Your task to perform on an android device: Open Google Image 0: 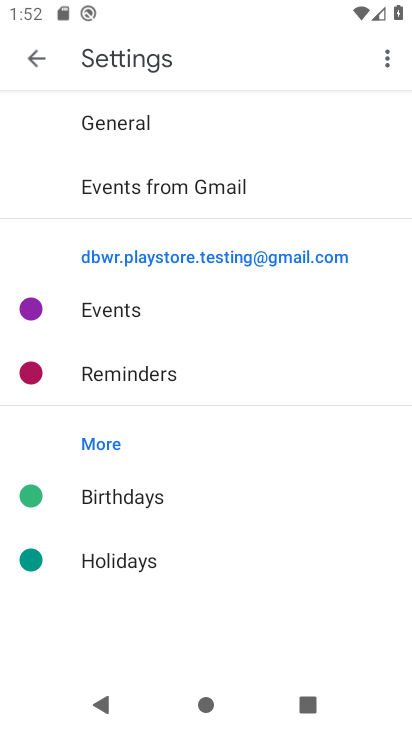
Step 0: press home button
Your task to perform on an android device: Open Google Image 1: 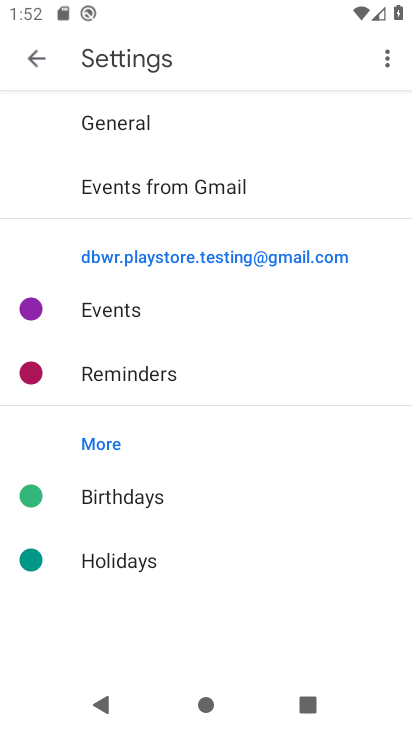
Step 1: press home button
Your task to perform on an android device: Open Google Image 2: 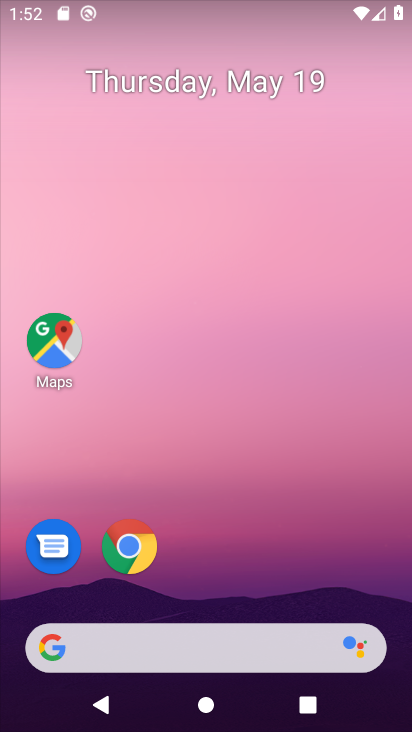
Step 2: drag from (219, 605) to (303, 8)
Your task to perform on an android device: Open Google Image 3: 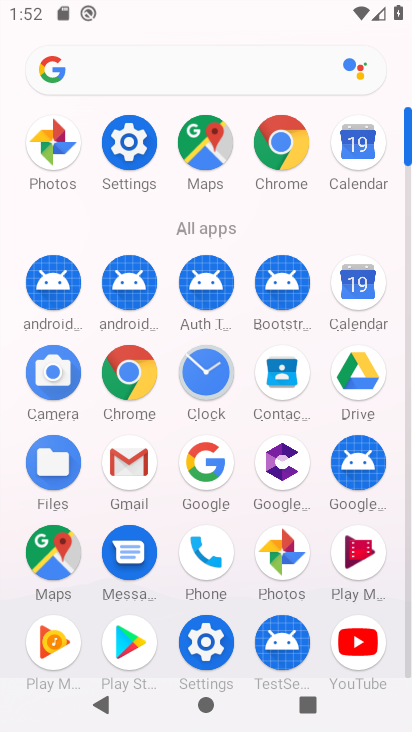
Step 3: click (203, 455)
Your task to perform on an android device: Open Google Image 4: 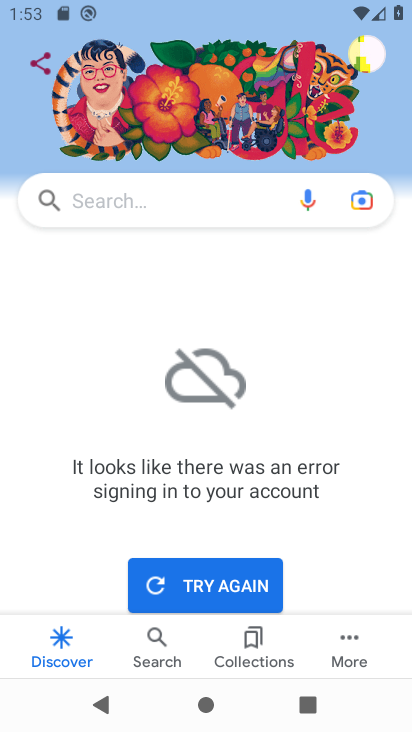
Step 4: click (202, 577)
Your task to perform on an android device: Open Google Image 5: 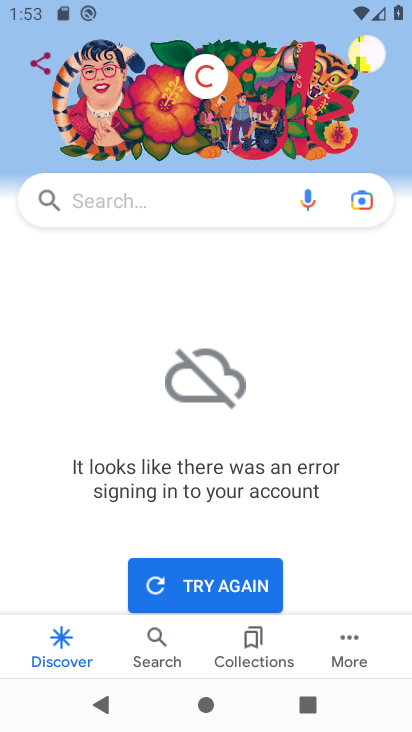
Step 5: task complete